Your task to perform on an android device: Go to sound settings Image 0: 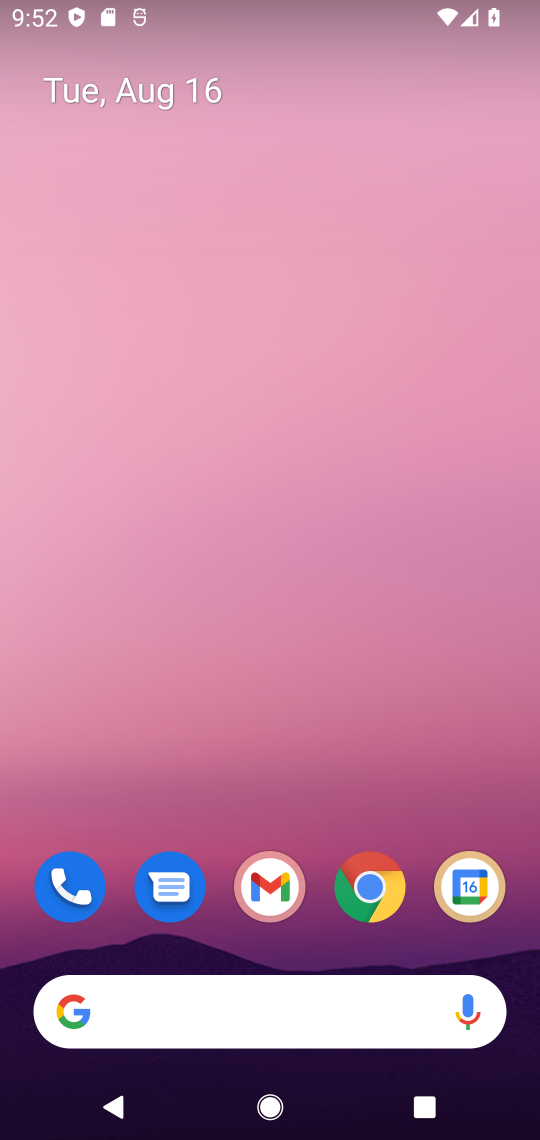
Step 0: press home button
Your task to perform on an android device: Go to sound settings Image 1: 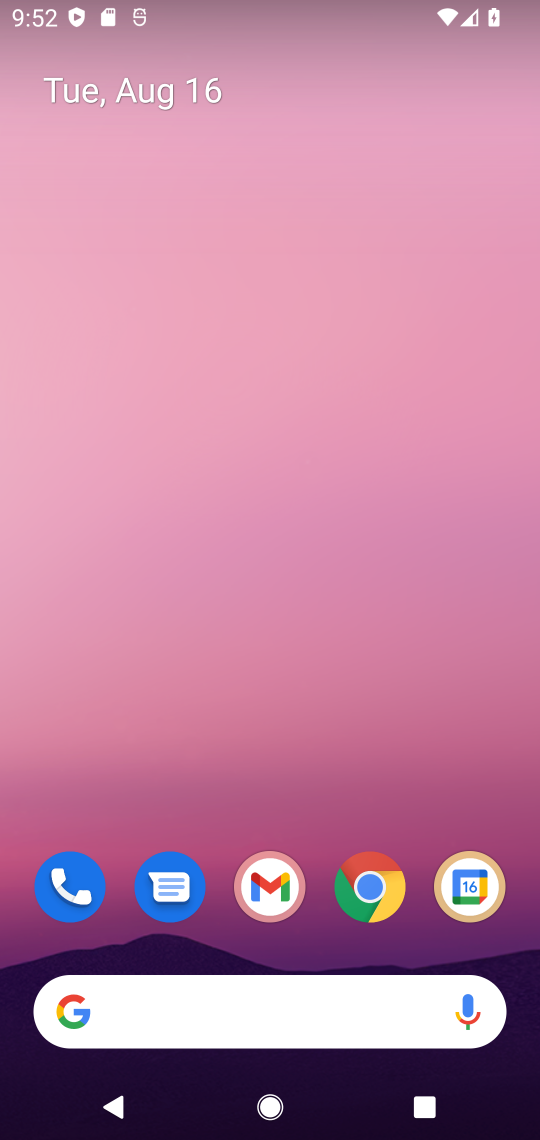
Step 1: drag from (428, 824) to (471, 147)
Your task to perform on an android device: Go to sound settings Image 2: 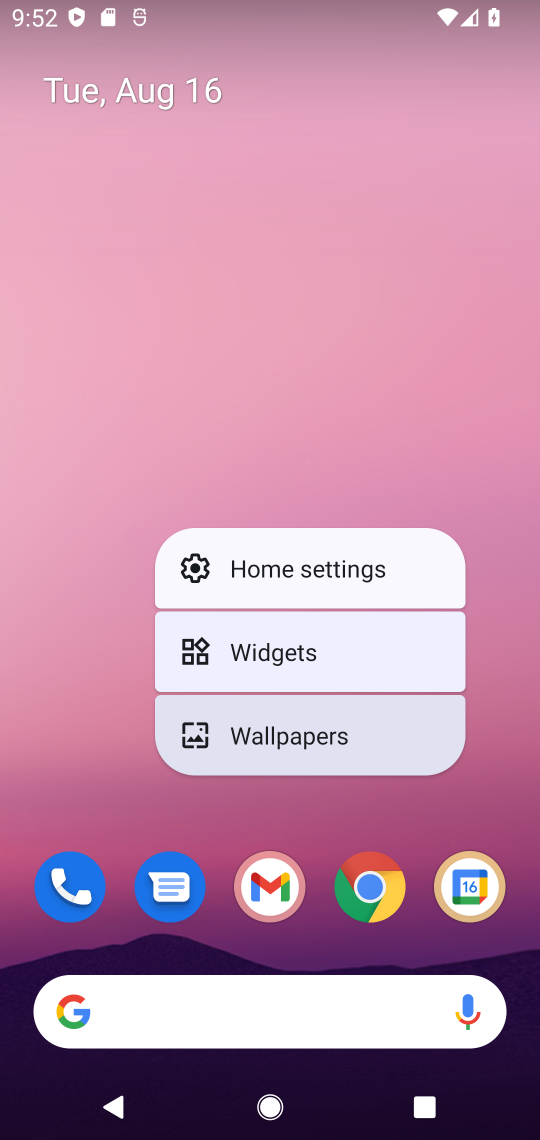
Step 2: click (497, 638)
Your task to perform on an android device: Go to sound settings Image 3: 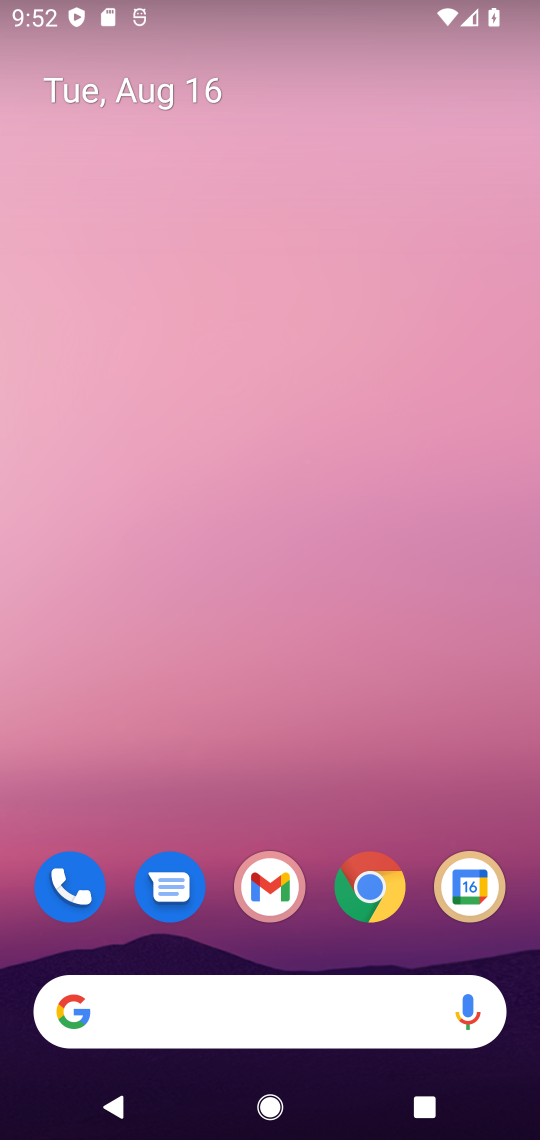
Step 3: drag from (411, 546) to (405, 54)
Your task to perform on an android device: Go to sound settings Image 4: 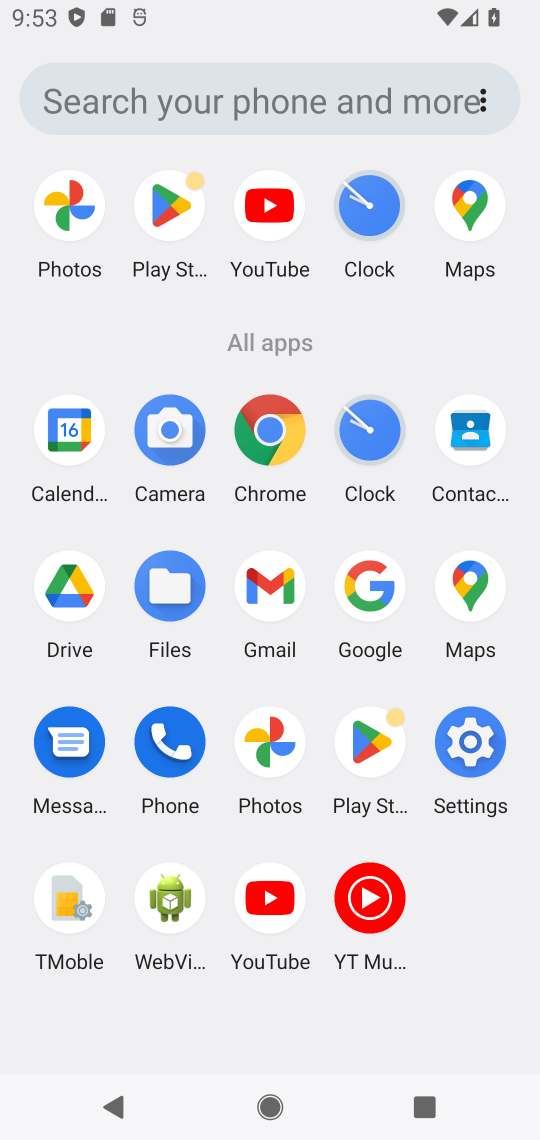
Step 4: click (473, 745)
Your task to perform on an android device: Go to sound settings Image 5: 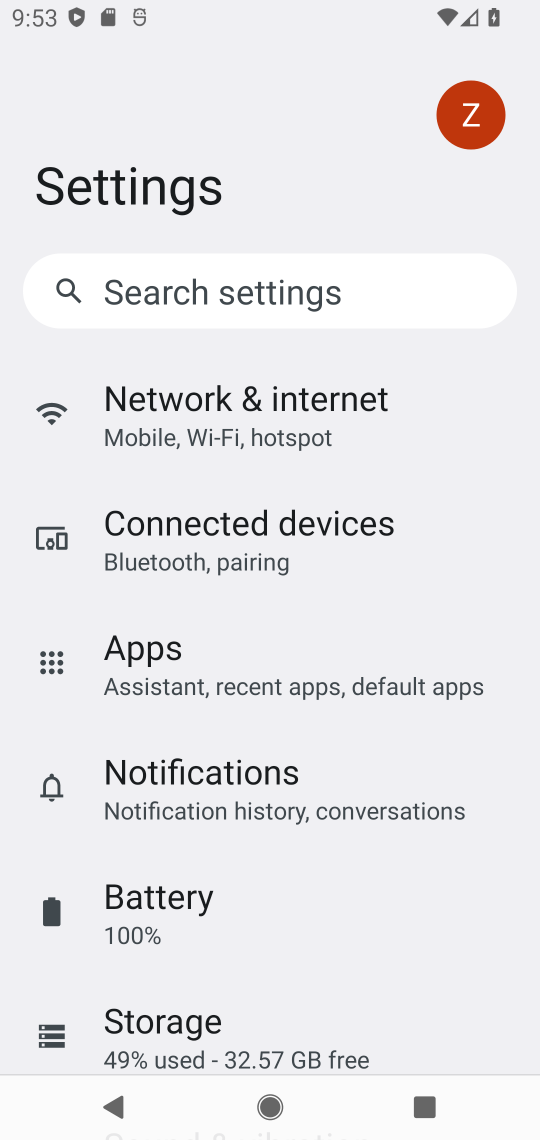
Step 5: drag from (459, 949) to (474, 806)
Your task to perform on an android device: Go to sound settings Image 6: 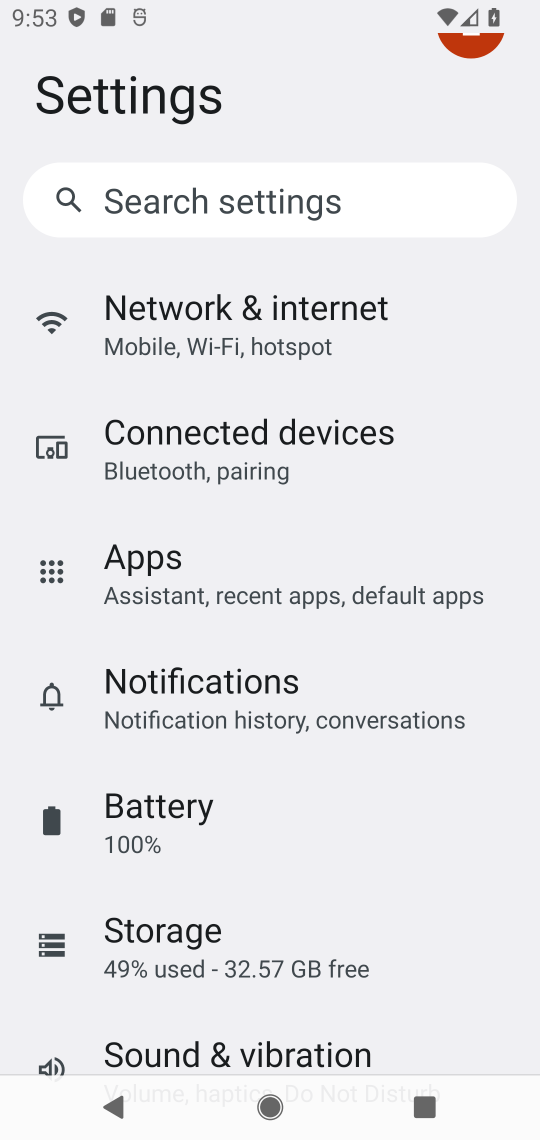
Step 6: drag from (450, 992) to (464, 816)
Your task to perform on an android device: Go to sound settings Image 7: 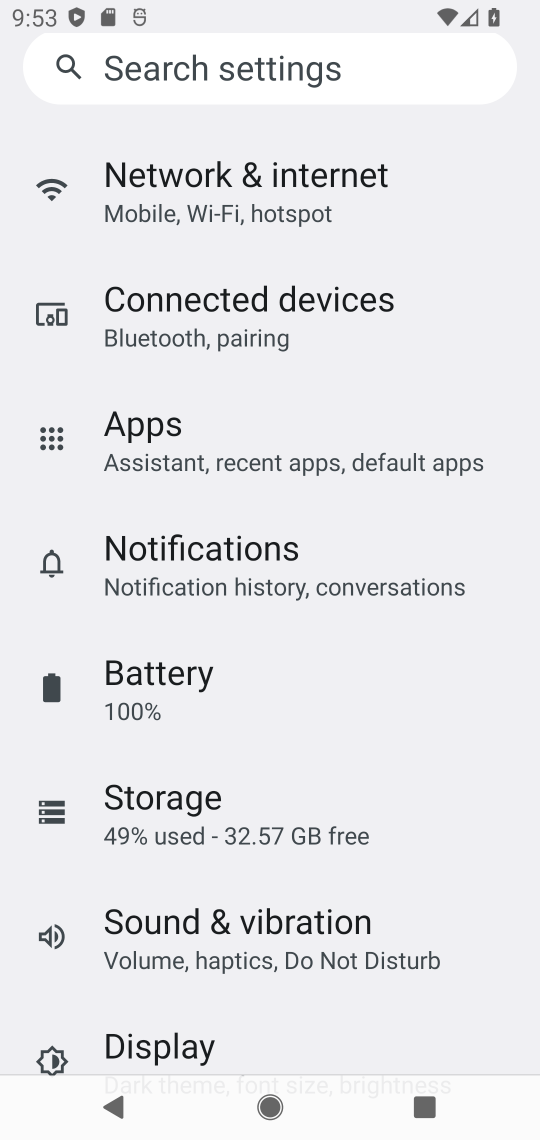
Step 7: drag from (480, 984) to (454, 700)
Your task to perform on an android device: Go to sound settings Image 8: 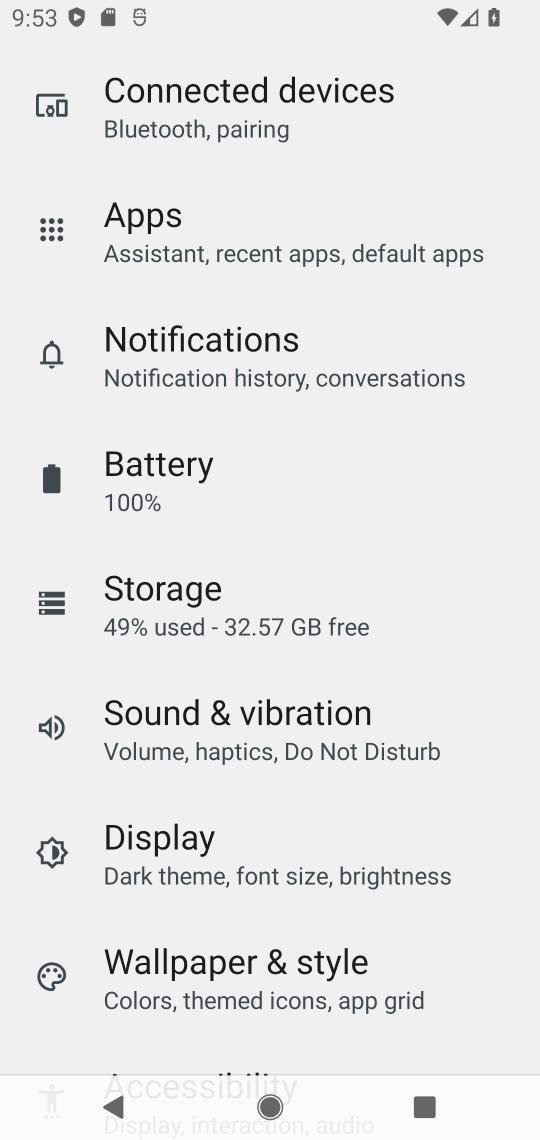
Step 8: drag from (467, 931) to (481, 749)
Your task to perform on an android device: Go to sound settings Image 9: 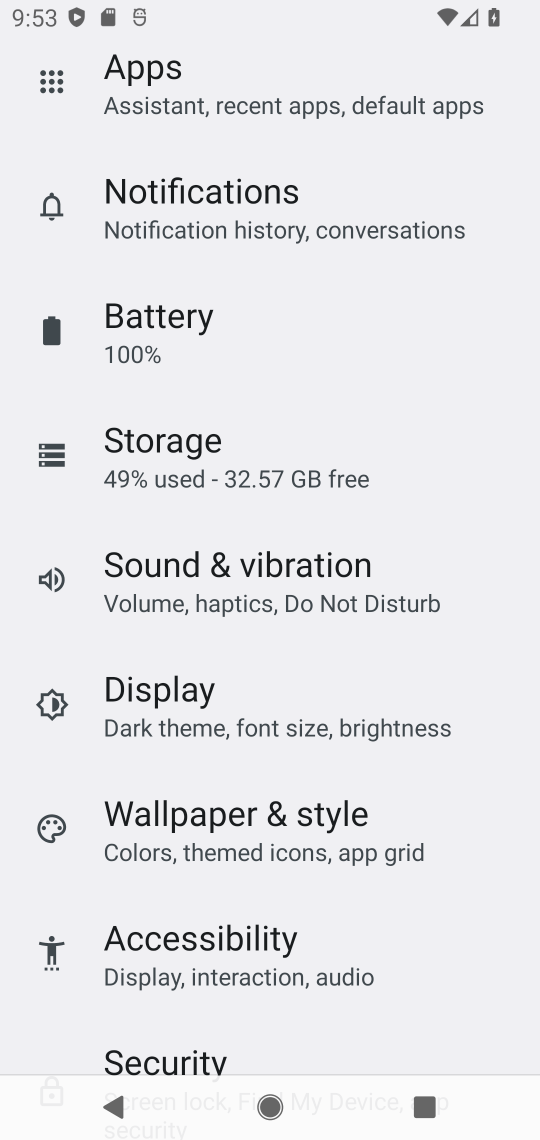
Step 9: click (475, 763)
Your task to perform on an android device: Go to sound settings Image 10: 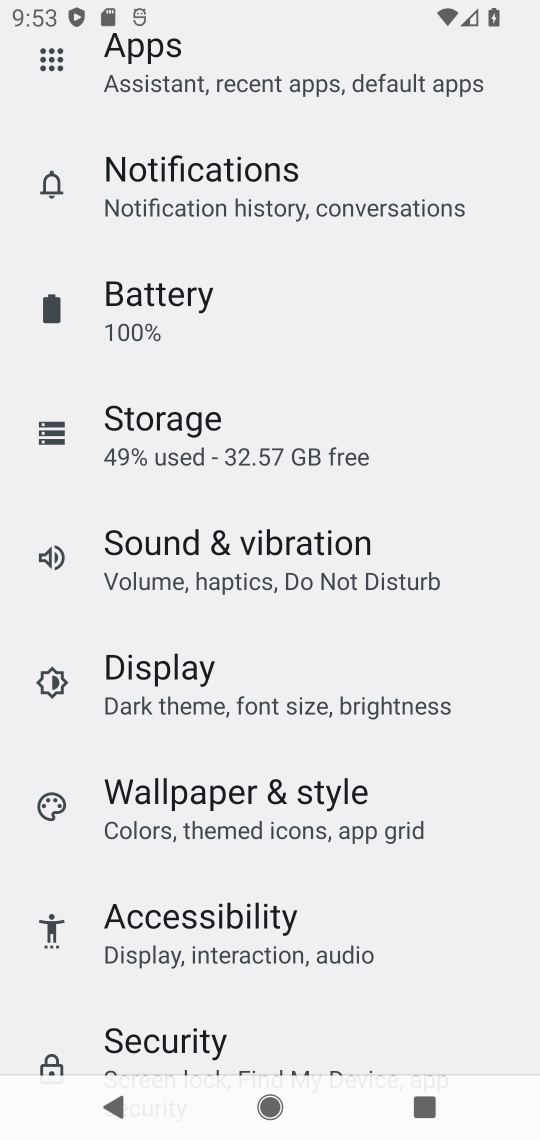
Step 10: click (377, 578)
Your task to perform on an android device: Go to sound settings Image 11: 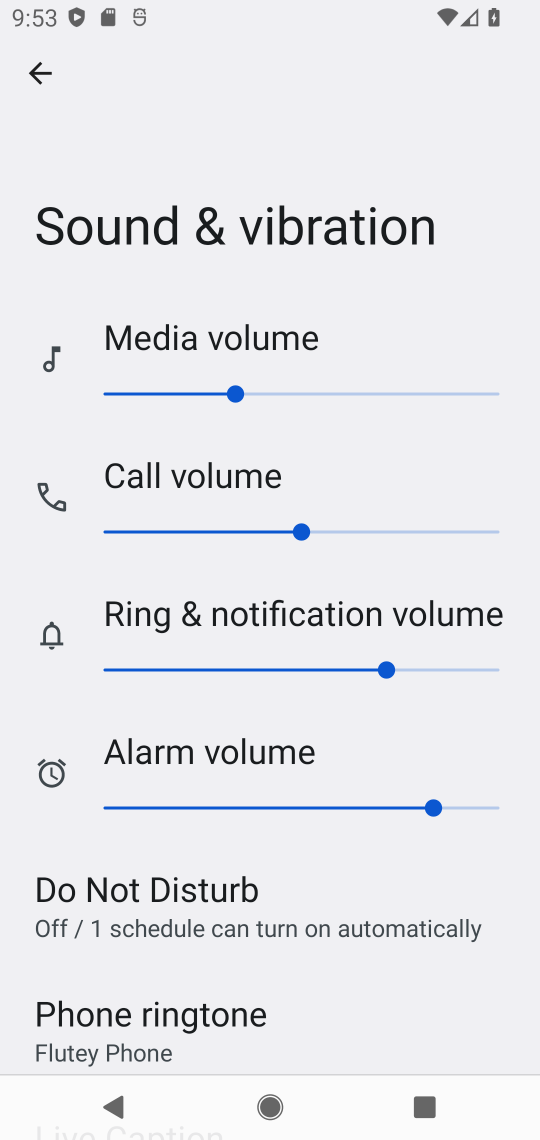
Step 11: task complete